Your task to perform on an android device: allow cookies in the chrome app Image 0: 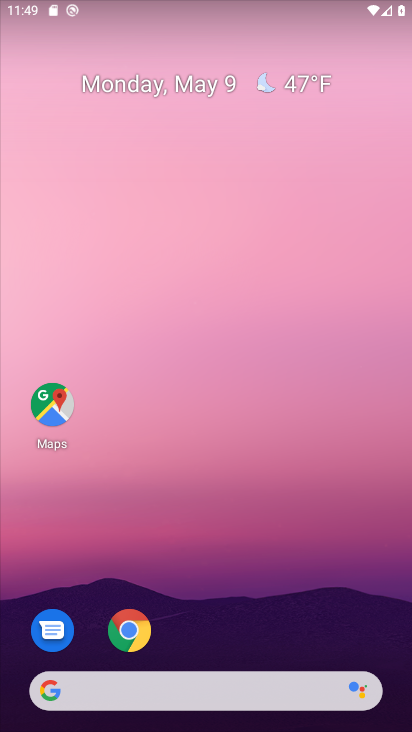
Step 0: click (128, 639)
Your task to perform on an android device: allow cookies in the chrome app Image 1: 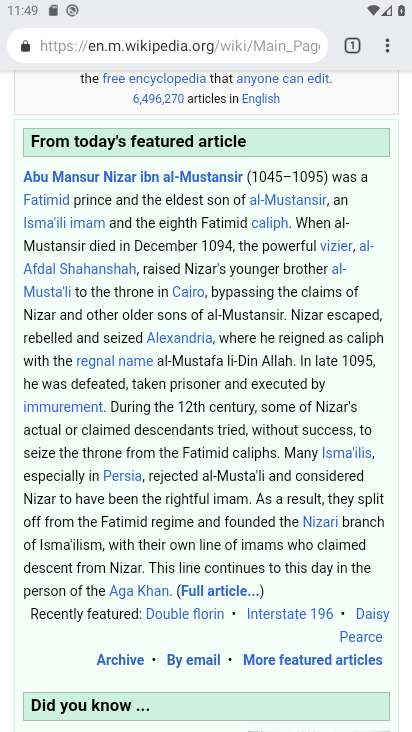
Step 1: click (385, 46)
Your task to perform on an android device: allow cookies in the chrome app Image 2: 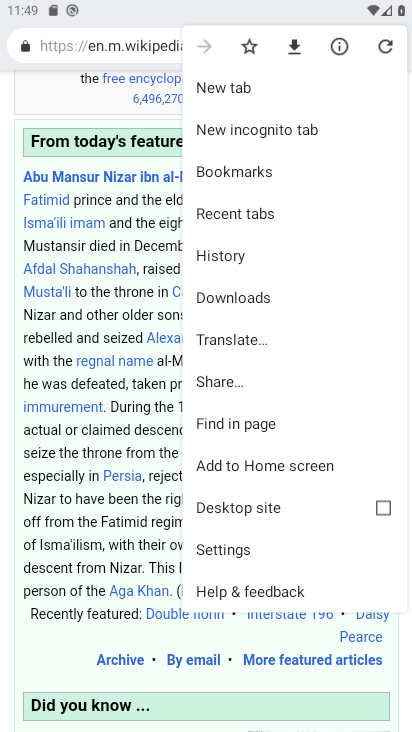
Step 2: click (225, 548)
Your task to perform on an android device: allow cookies in the chrome app Image 3: 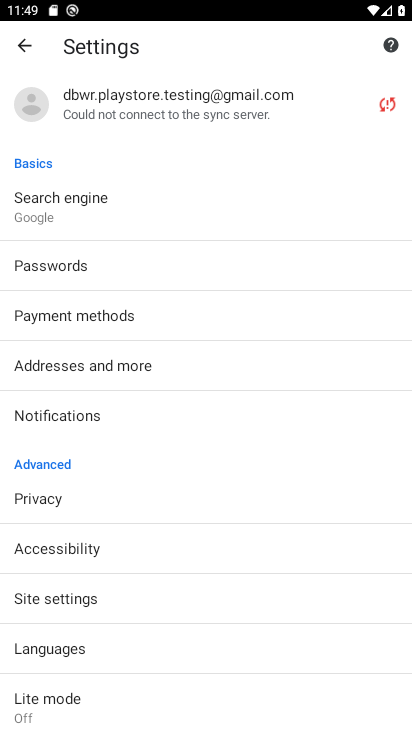
Step 3: click (73, 596)
Your task to perform on an android device: allow cookies in the chrome app Image 4: 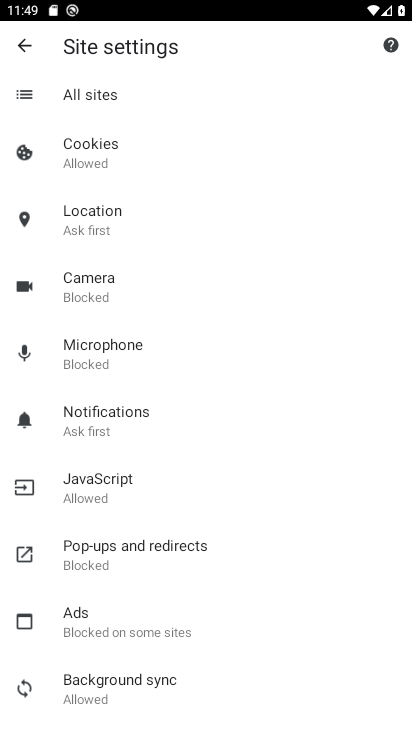
Step 4: click (87, 159)
Your task to perform on an android device: allow cookies in the chrome app Image 5: 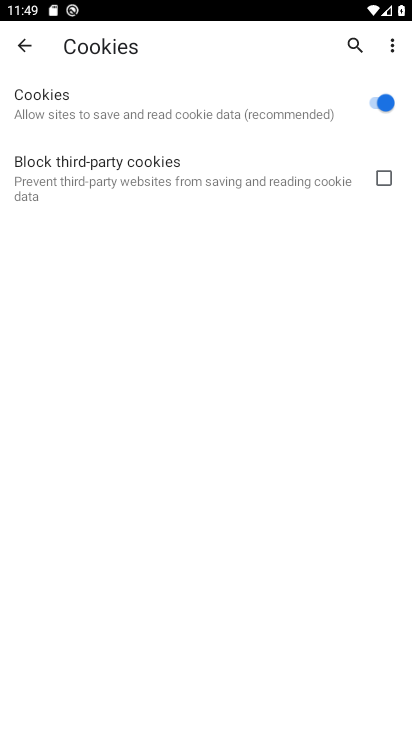
Step 5: task complete